Your task to perform on an android device: What's on my calendar today? Image 0: 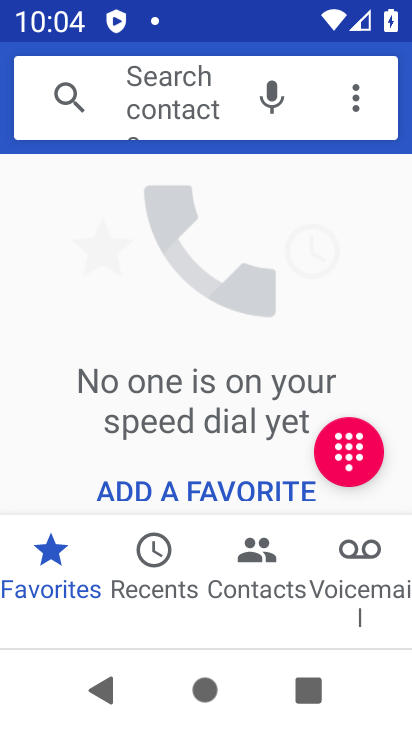
Step 0: press home button
Your task to perform on an android device: What's on my calendar today? Image 1: 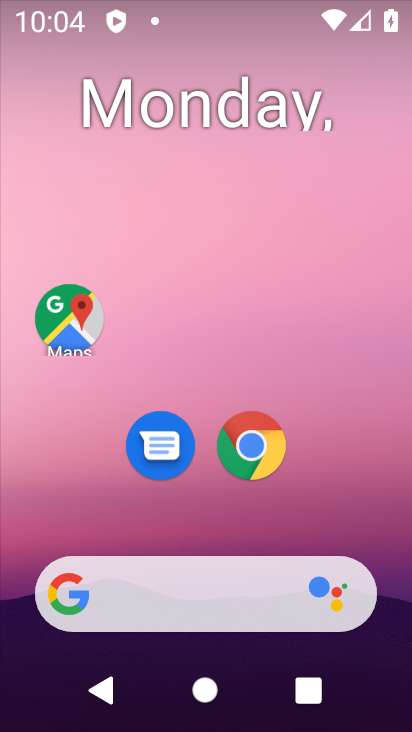
Step 1: drag from (373, 522) to (371, 133)
Your task to perform on an android device: What's on my calendar today? Image 2: 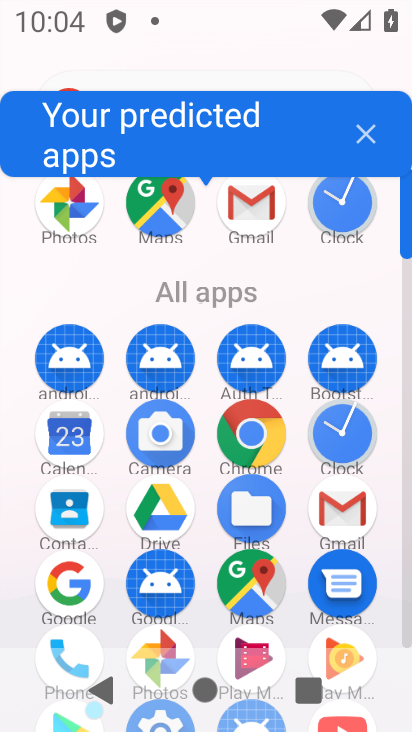
Step 2: click (54, 439)
Your task to perform on an android device: What's on my calendar today? Image 3: 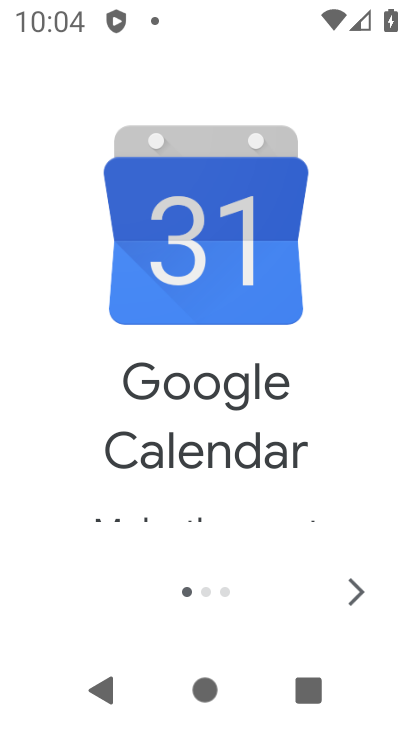
Step 3: click (353, 594)
Your task to perform on an android device: What's on my calendar today? Image 4: 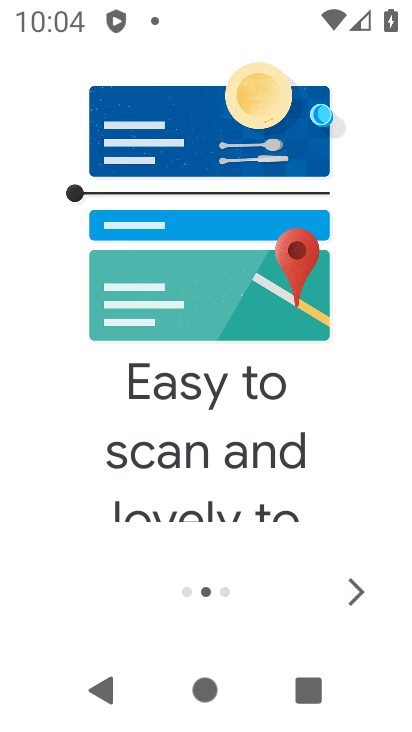
Step 4: click (353, 594)
Your task to perform on an android device: What's on my calendar today? Image 5: 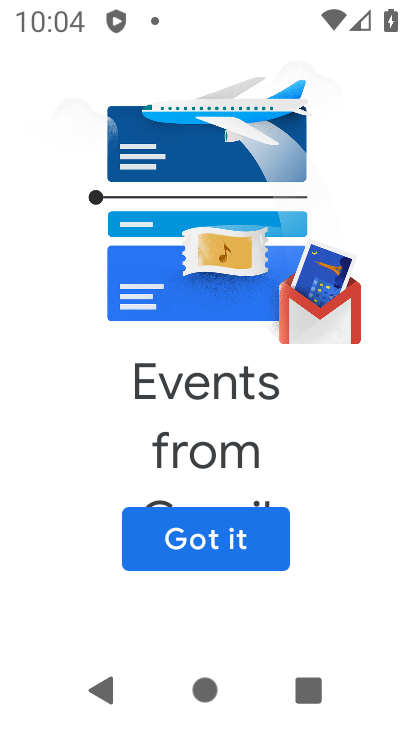
Step 5: click (221, 530)
Your task to perform on an android device: What's on my calendar today? Image 6: 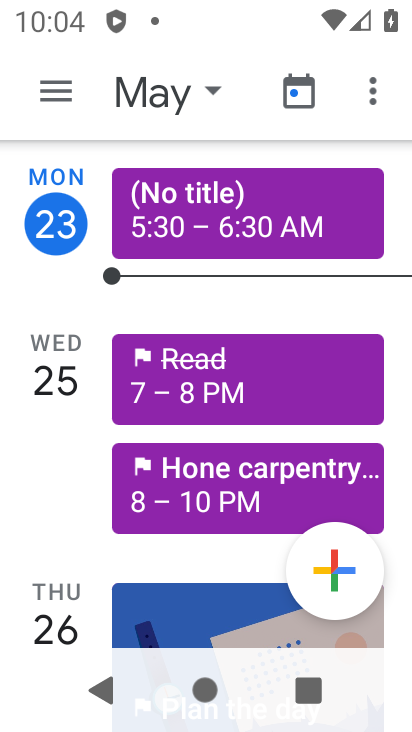
Step 6: click (186, 95)
Your task to perform on an android device: What's on my calendar today? Image 7: 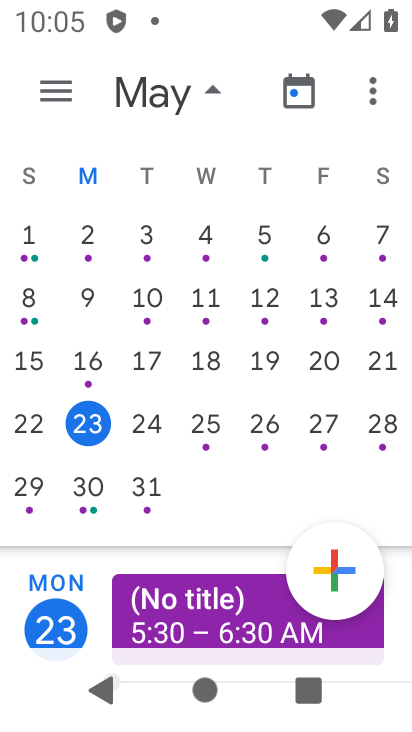
Step 7: click (149, 415)
Your task to perform on an android device: What's on my calendar today? Image 8: 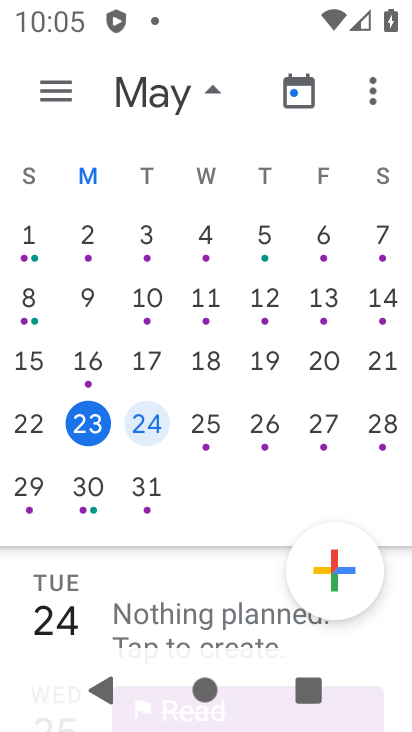
Step 8: click (189, 102)
Your task to perform on an android device: What's on my calendar today? Image 9: 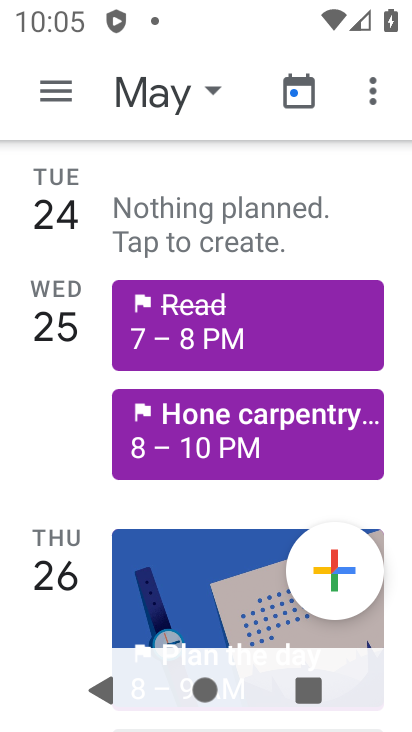
Step 9: task complete